Your task to perform on an android device: open device folders in google photos Image 0: 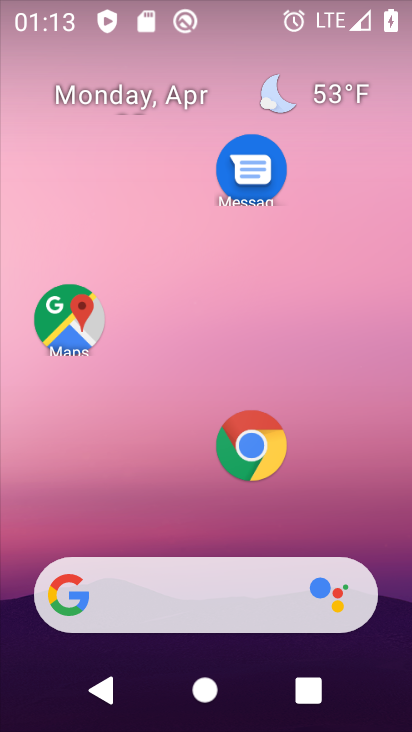
Step 0: drag from (145, 507) to (190, 57)
Your task to perform on an android device: open device folders in google photos Image 1: 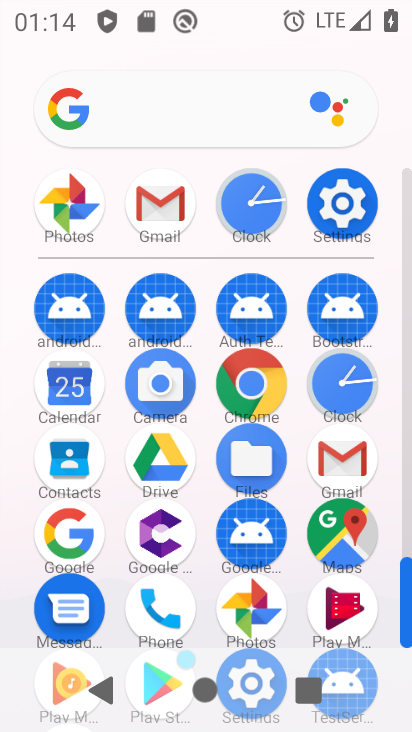
Step 1: click (250, 606)
Your task to perform on an android device: open device folders in google photos Image 2: 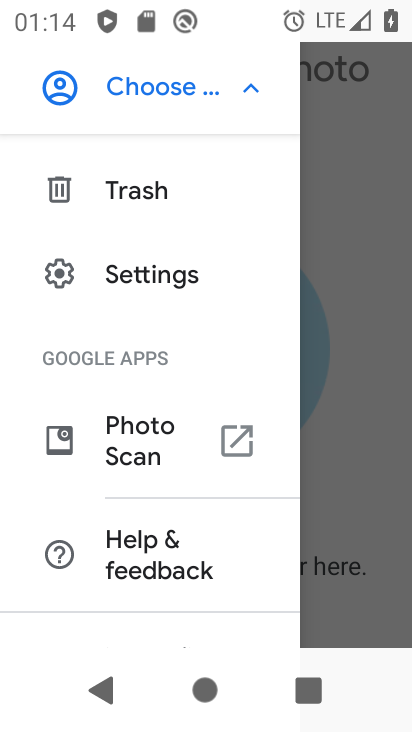
Step 2: task complete